Your task to perform on an android device: Open my contact list Image 0: 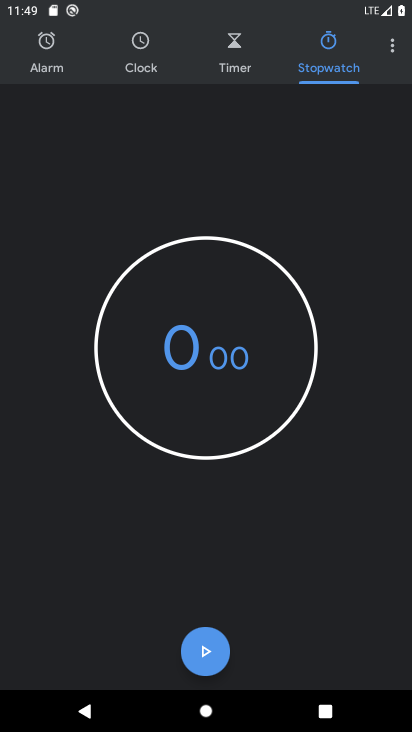
Step 0: press home button
Your task to perform on an android device: Open my contact list Image 1: 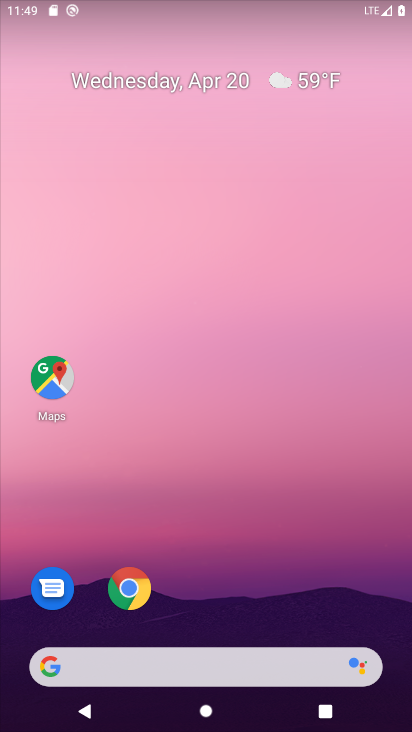
Step 1: drag from (183, 406) to (148, 14)
Your task to perform on an android device: Open my contact list Image 2: 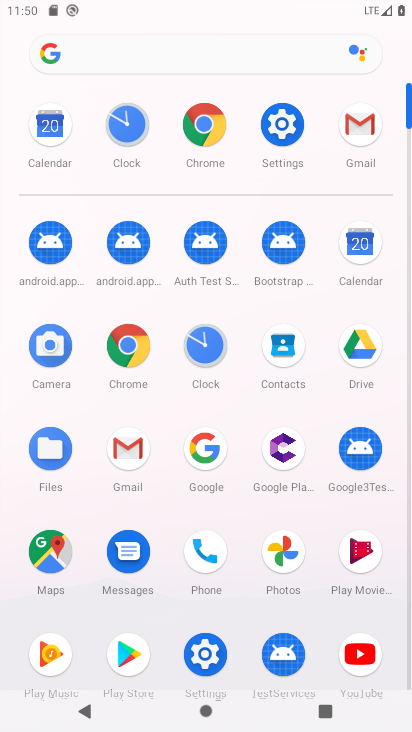
Step 2: click (280, 354)
Your task to perform on an android device: Open my contact list Image 3: 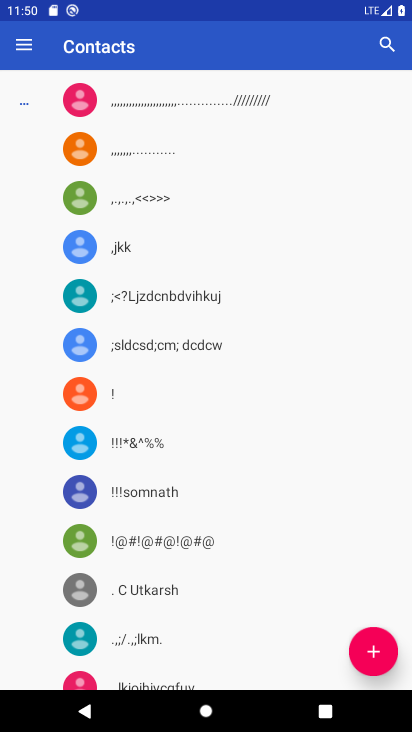
Step 3: task complete